Your task to perform on an android device: What is the recent news? Image 0: 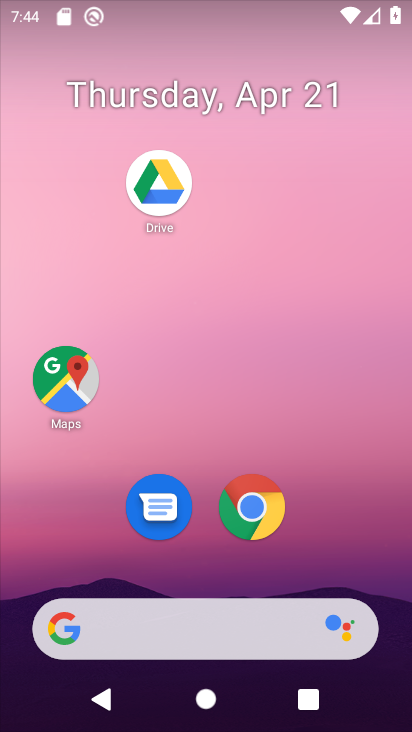
Step 0: drag from (8, 260) to (402, 278)
Your task to perform on an android device: What is the recent news? Image 1: 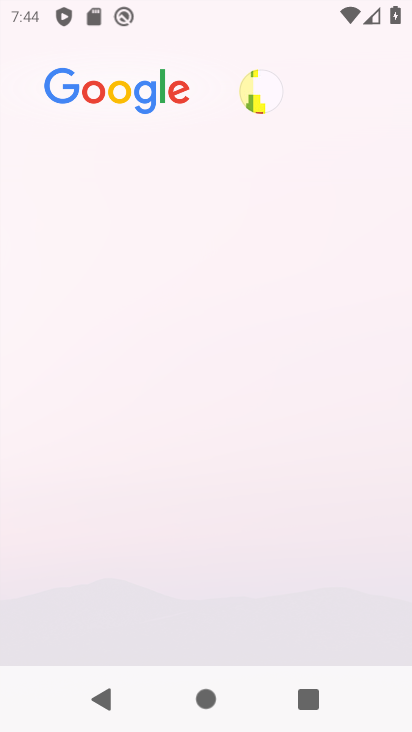
Step 1: task complete